Your task to perform on an android device: Open Reddit.com Image 0: 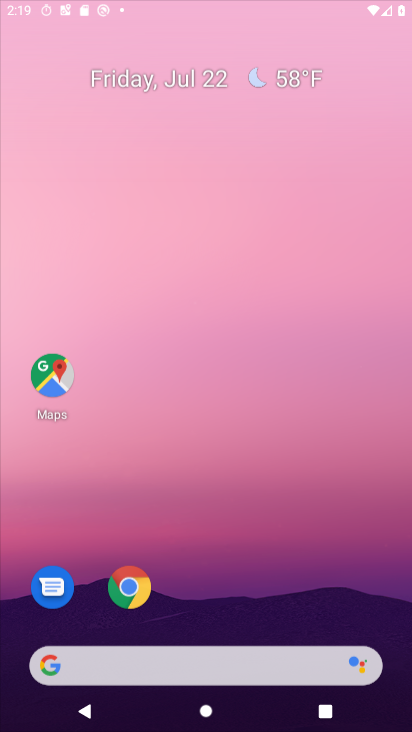
Step 0: press home button
Your task to perform on an android device: Open Reddit.com Image 1: 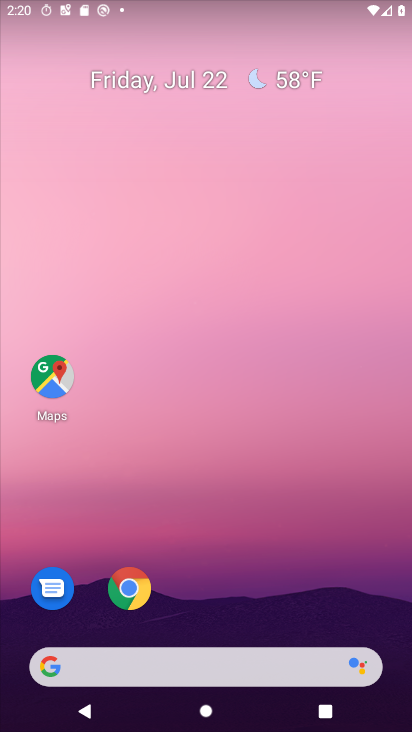
Step 1: click (125, 600)
Your task to perform on an android device: Open Reddit.com Image 2: 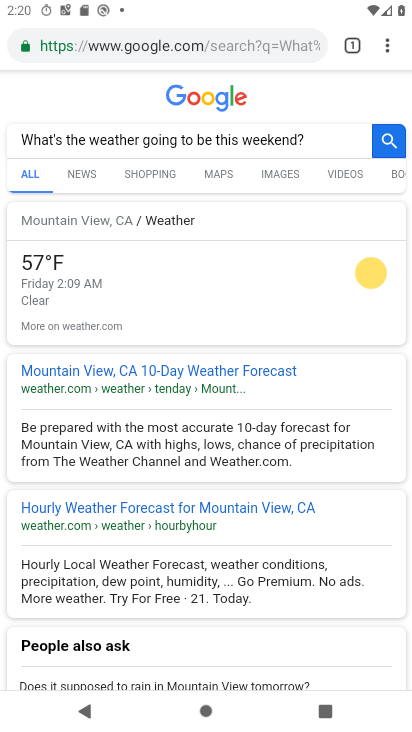
Step 2: click (82, 48)
Your task to perform on an android device: Open Reddit.com Image 3: 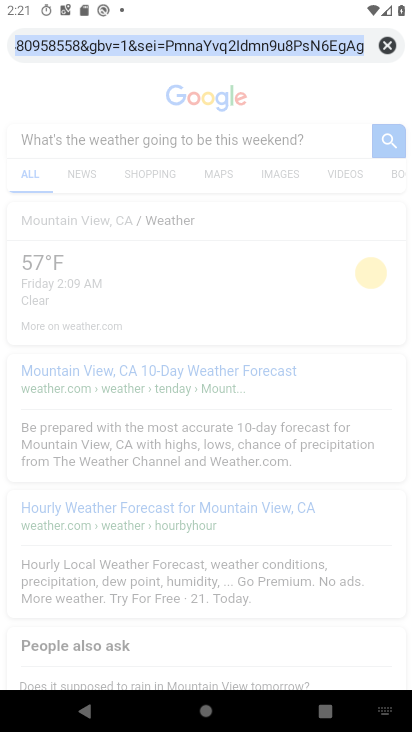
Step 3: type "Reddit.com"
Your task to perform on an android device: Open Reddit.com Image 4: 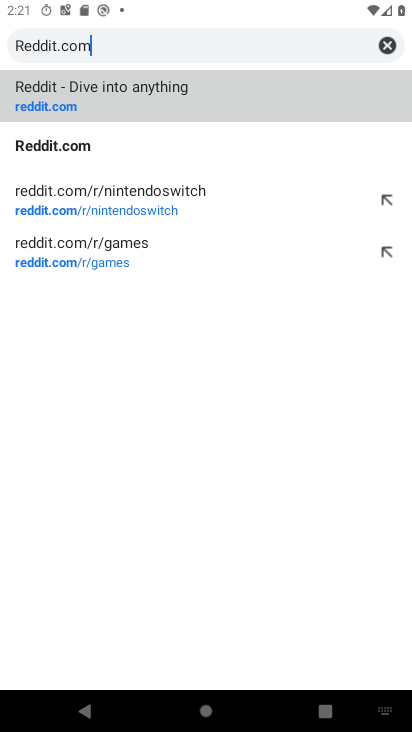
Step 4: type ""
Your task to perform on an android device: Open Reddit.com Image 5: 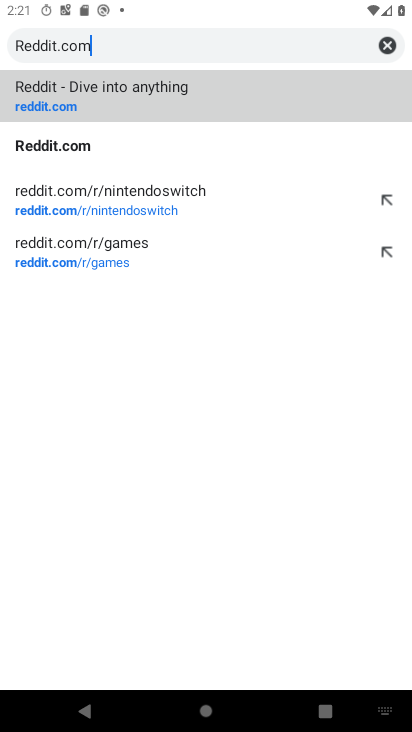
Step 5: click (74, 79)
Your task to perform on an android device: Open Reddit.com Image 6: 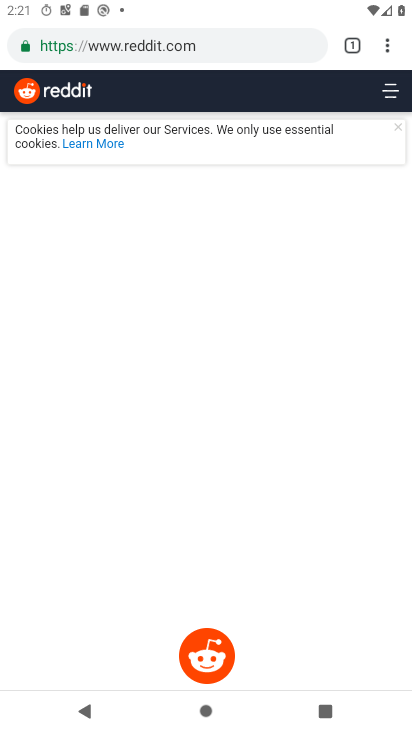
Step 6: task complete